Your task to perform on an android device: change the clock display to show seconds Image 0: 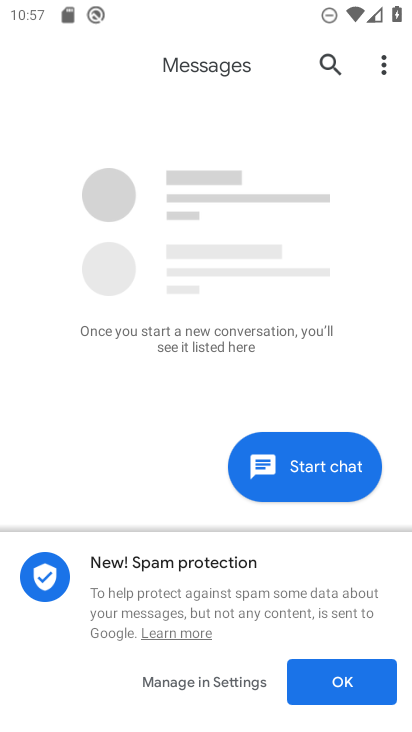
Step 0: press back button
Your task to perform on an android device: change the clock display to show seconds Image 1: 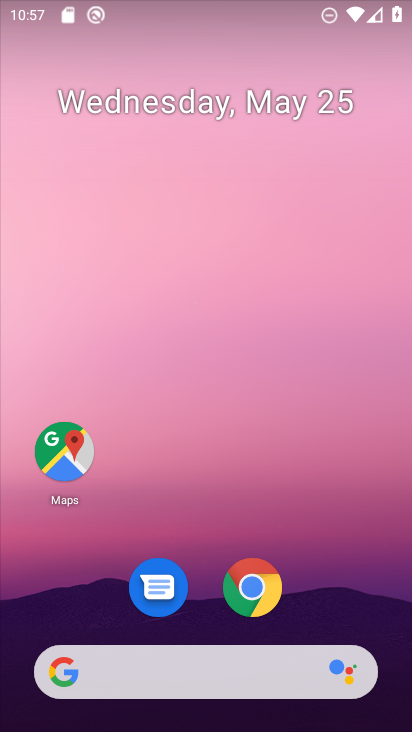
Step 1: drag from (317, 563) to (255, 5)
Your task to perform on an android device: change the clock display to show seconds Image 2: 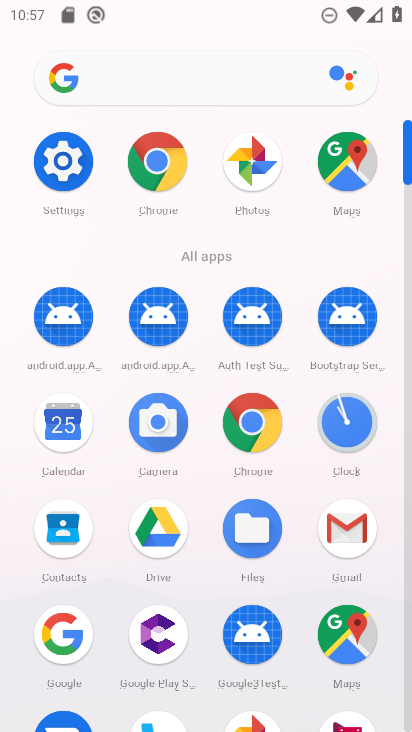
Step 2: drag from (0, 549) to (16, 206)
Your task to perform on an android device: change the clock display to show seconds Image 3: 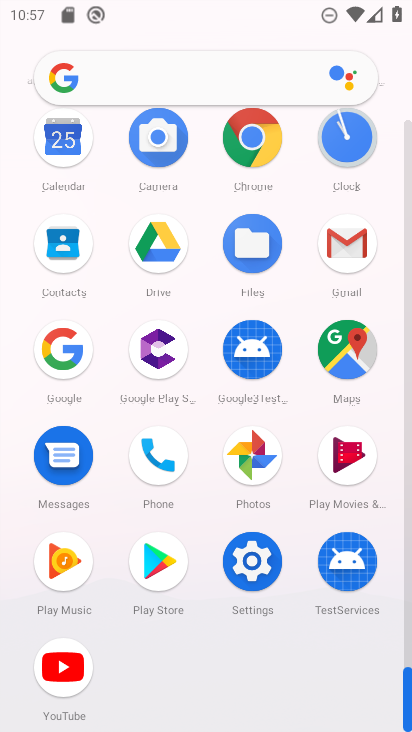
Step 3: click (347, 135)
Your task to perform on an android device: change the clock display to show seconds Image 4: 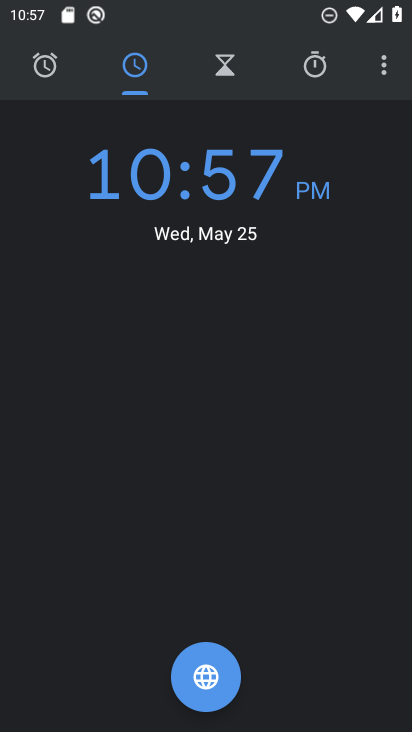
Step 4: drag from (381, 67) to (288, 128)
Your task to perform on an android device: change the clock display to show seconds Image 5: 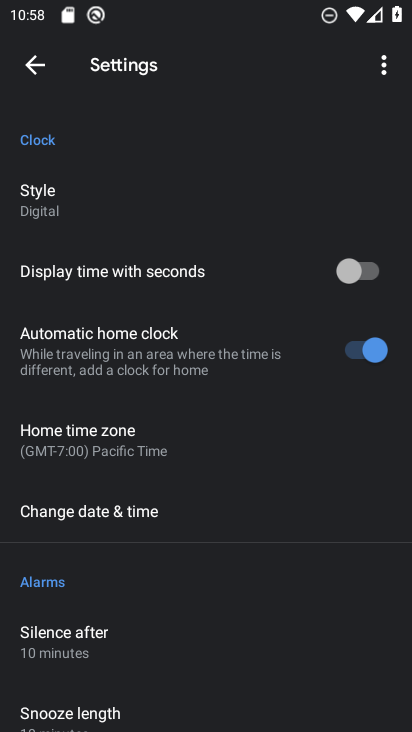
Step 5: click (370, 267)
Your task to perform on an android device: change the clock display to show seconds Image 6: 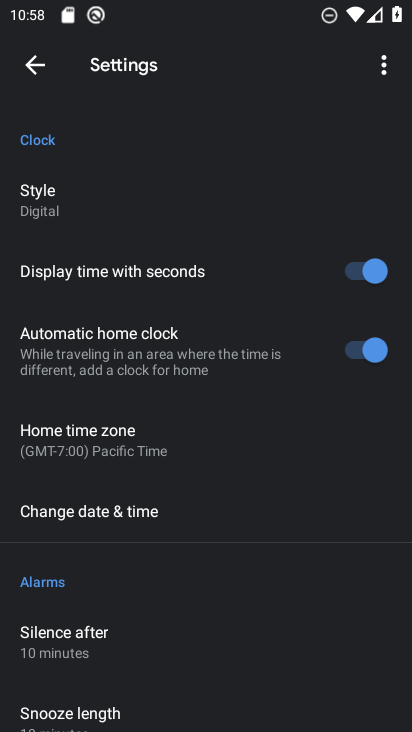
Step 6: task complete